Your task to perform on an android device: Play the last video I watched on Youtube Image 0: 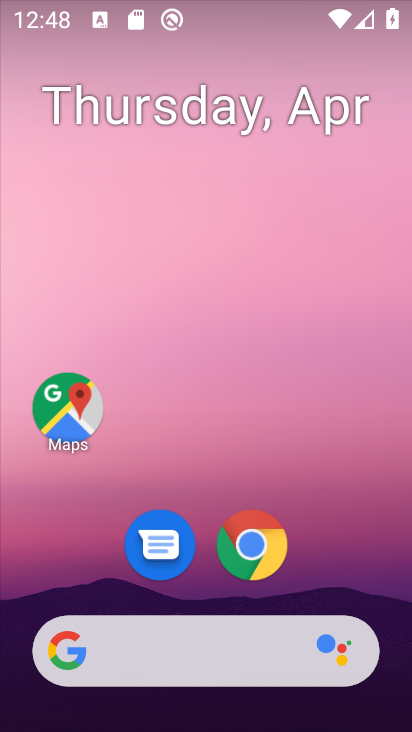
Step 0: drag from (281, 198) to (278, 82)
Your task to perform on an android device: Play the last video I watched on Youtube Image 1: 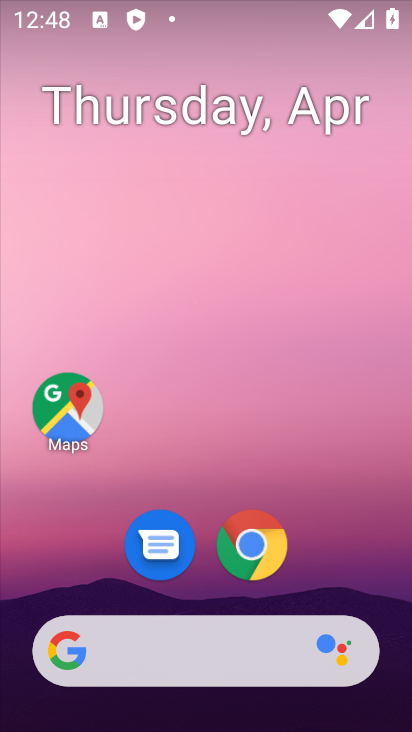
Step 1: drag from (244, 491) to (257, 151)
Your task to perform on an android device: Play the last video I watched on Youtube Image 2: 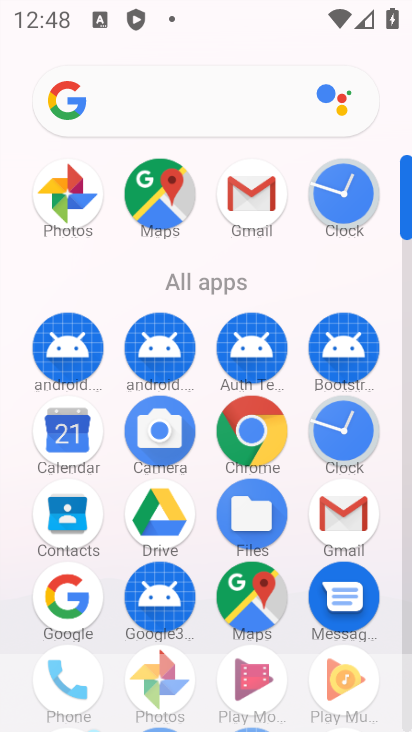
Step 2: click (409, 585)
Your task to perform on an android device: Play the last video I watched on Youtube Image 3: 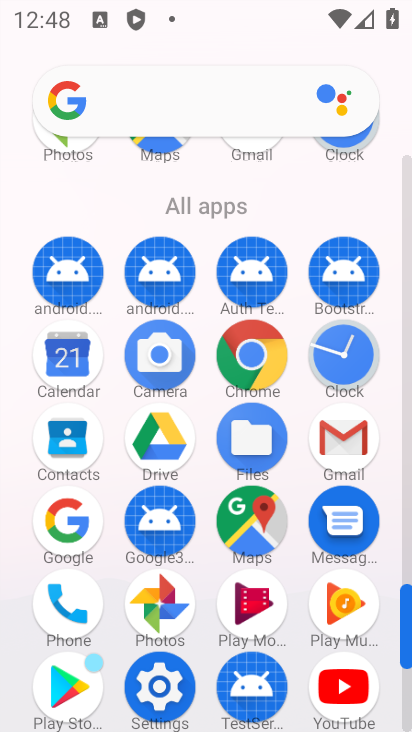
Step 3: click (408, 693)
Your task to perform on an android device: Play the last video I watched on Youtube Image 4: 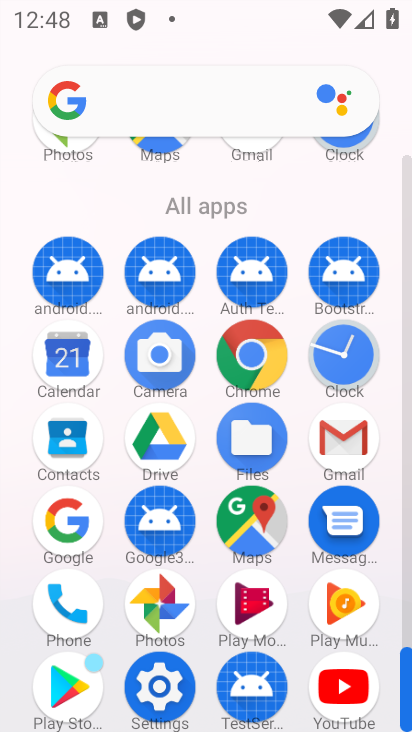
Step 4: drag from (406, 671) to (402, 731)
Your task to perform on an android device: Play the last video I watched on Youtube Image 5: 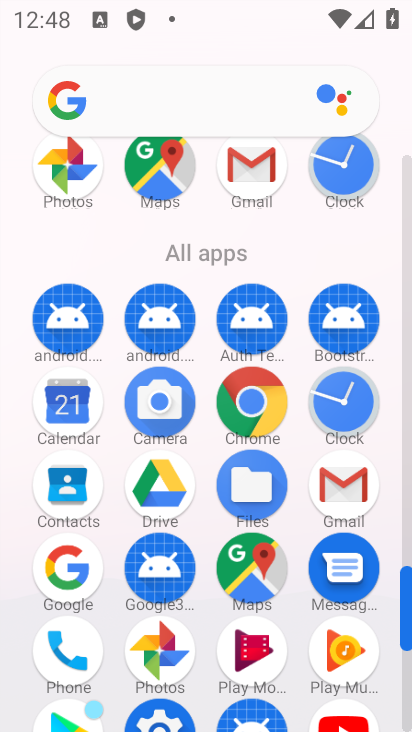
Step 5: click (405, 692)
Your task to perform on an android device: Play the last video I watched on Youtube Image 6: 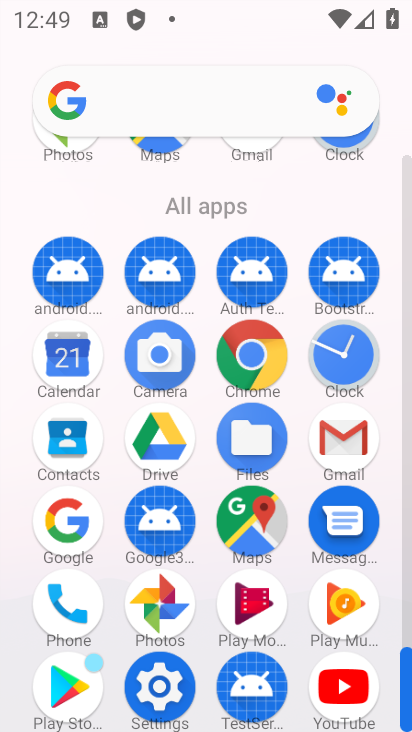
Step 6: click (366, 687)
Your task to perform on an android device: Play the last video I watched on Youtube Image 7: 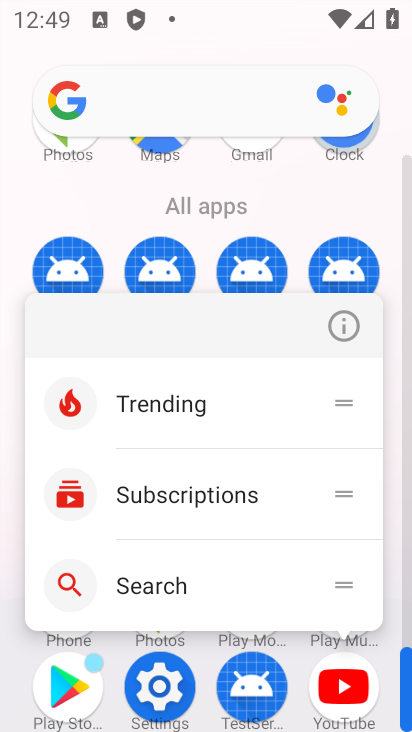
Step 7: click (358, 687)
Your task to perform on an android device: Play the last video I watched on Youtube Image 8: 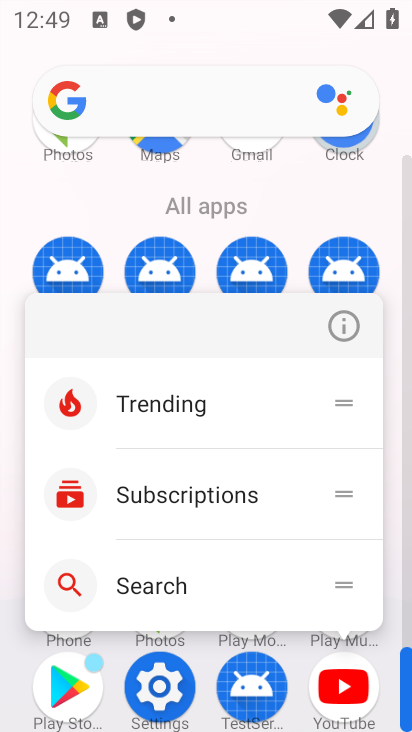
Step 8: click (354, 687)
Your task to perform on an android device: Play the last video I watched on Youtube Image 9: 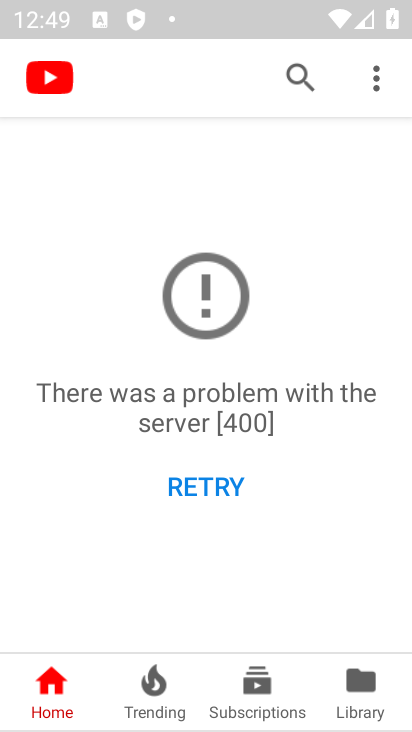
Step 9: click (366, 681)
Your task to perform on an android device: Play the last video I watched on Youtube Image 10: 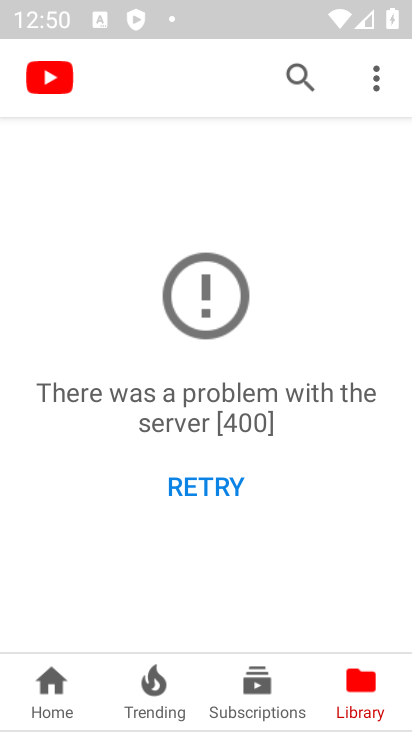
Step 10: task complete